Your task to perform on an android device: Show me recent news Image 0: 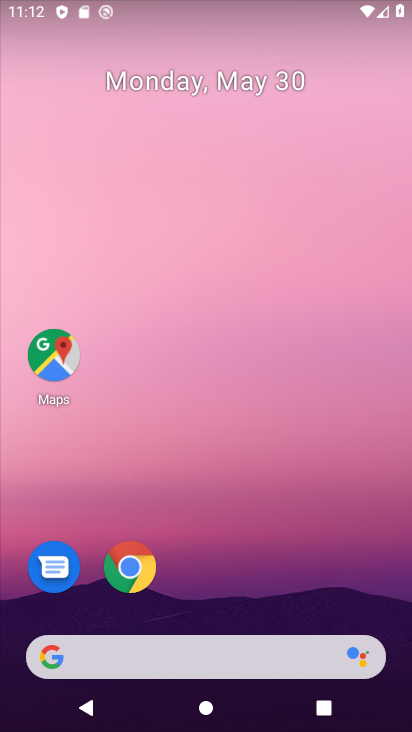
Step 0: drag from (319, 572) to (356, 150)
Your task to perform on an android device: Show me recent news Image 1: 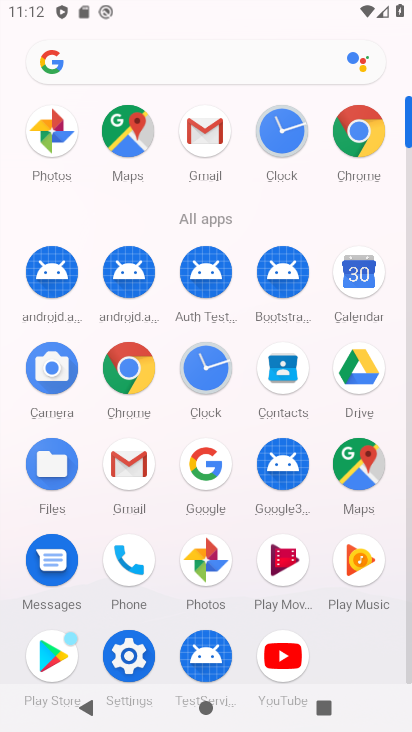
Step 1: click (123, 387)
Your task to perform on an android device: Show me recent news Image 2: 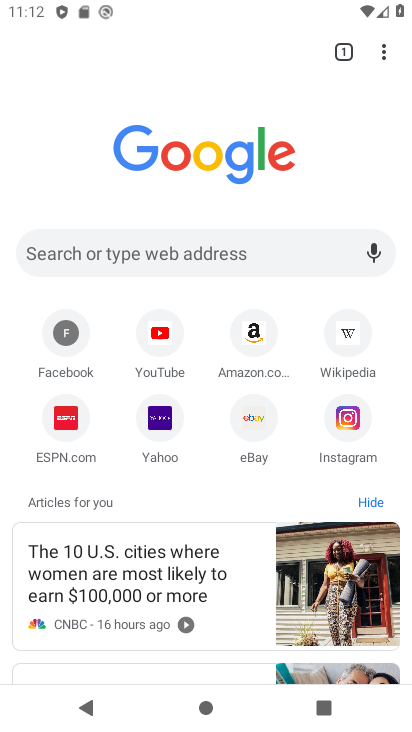
Step 2: click (158, 253)
Your task to perform on an android device: Show me recent news Image 3: 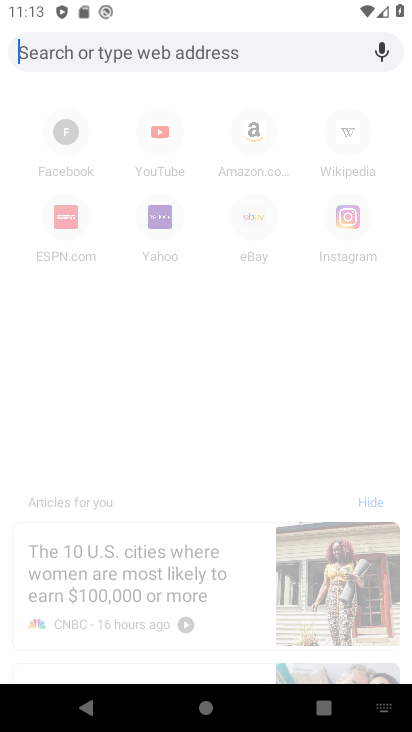
Step 3: type "recent news"
Your task to perform on an android device: Show me recent news Image 4: 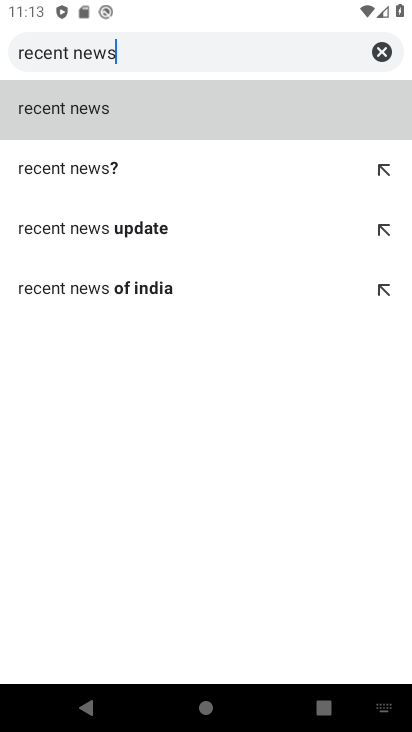
Step 4: click (190, 111)
Your task to perform on an android device: Show me recent news Image 5: 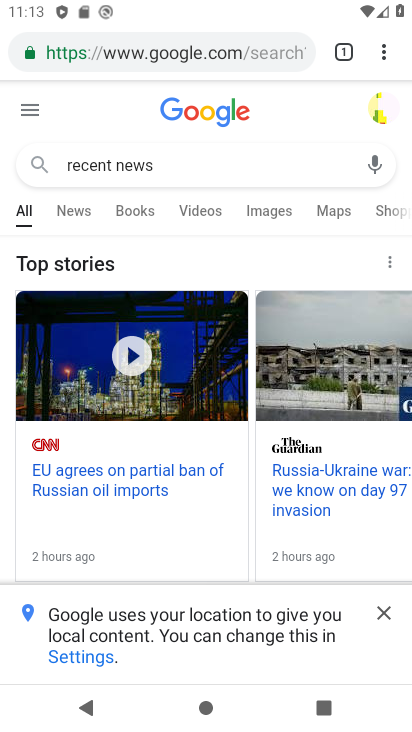
Step 5: task complete